Your task to perform on an android device: change the clock display to analog Image 0: 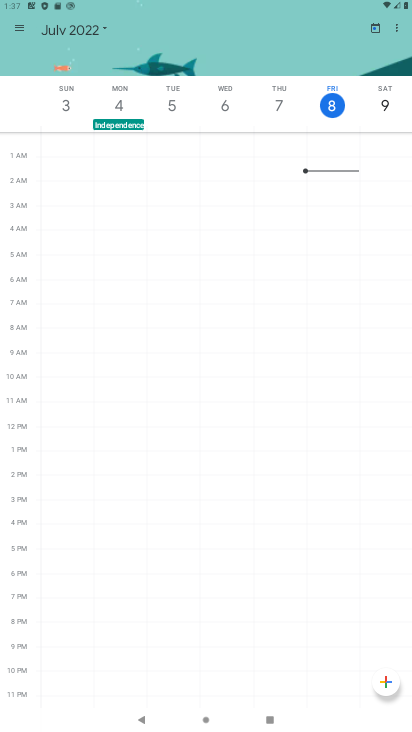
Step 0: task complete